Your task to perform on an android device: see creations saved in the google photos Image 0: 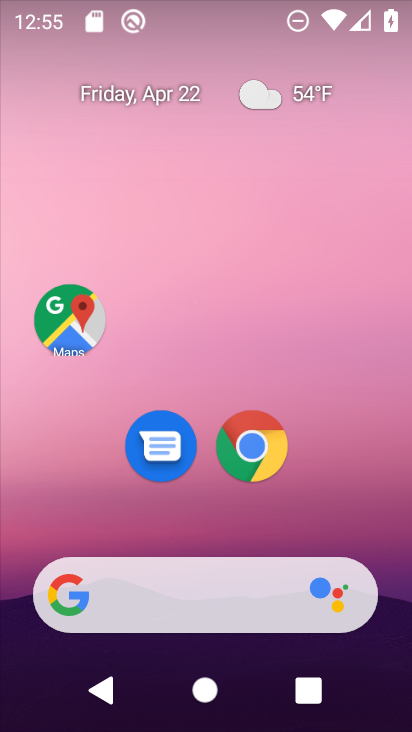
Step 0: drag from (388, 567) to (337, 34)
Your task to perform on an android device: see creations saved in the google photos Image 1: 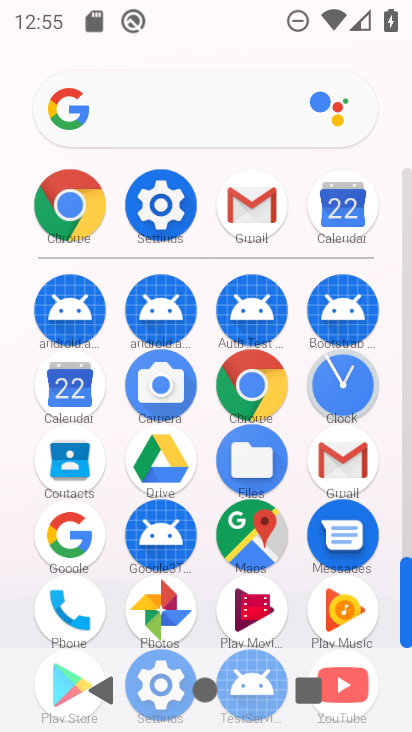
Step 1: click (175, 604)
Your task to perform on an android device: see creations saved in the google photos Image 2: 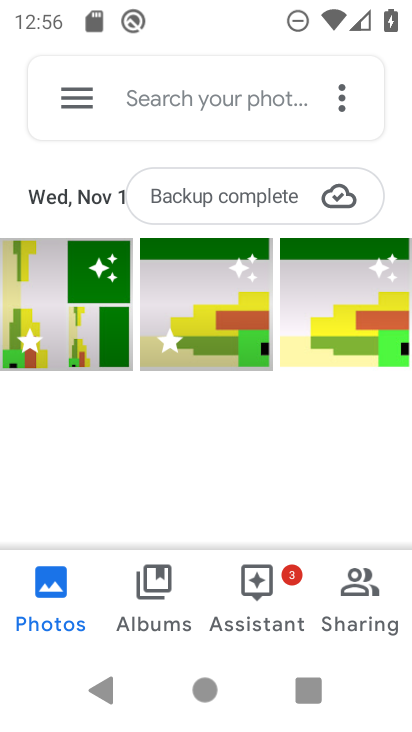
Step 2: click (210, 89)
Your task to perform on an android device: see creations saved in the google photos Image 3: 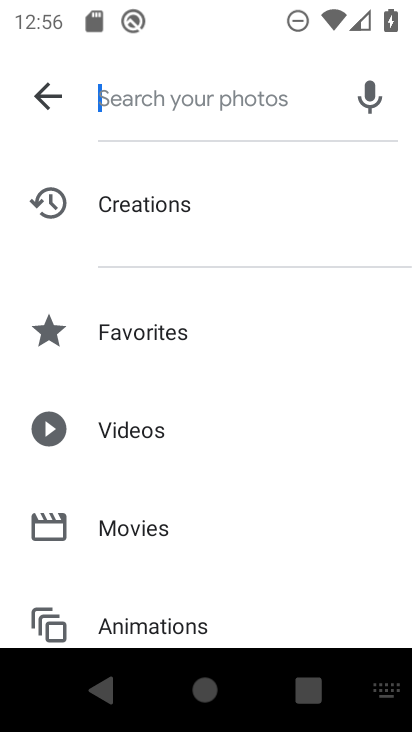
Step 3: click (185, 192)
Your task to perform on an android device: see creations saved in the google photos Image 4: 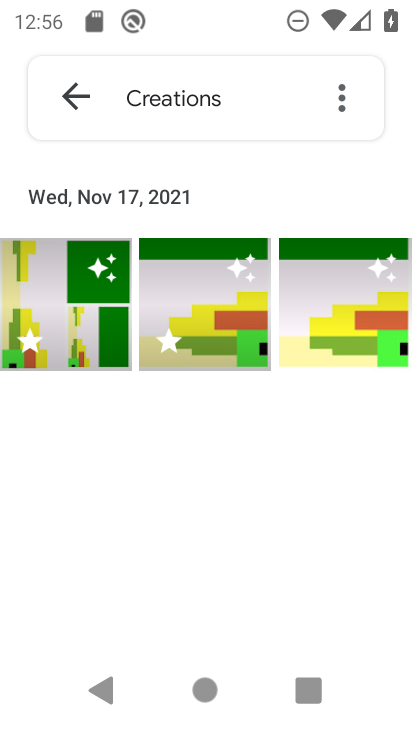
Step 4: task complete